Your task to perform on an android device: star an email in the gmail app Image 0: 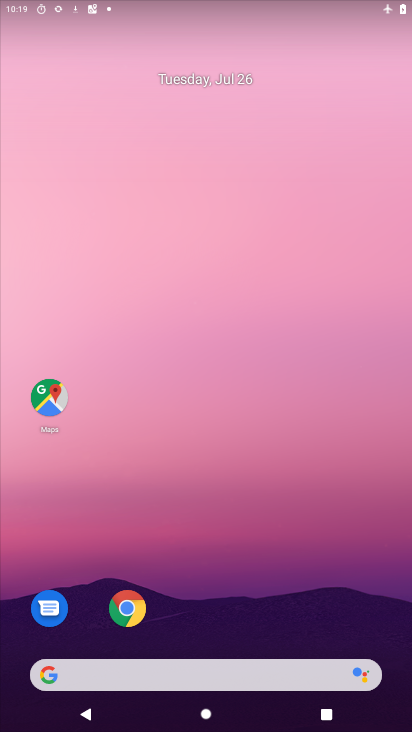
Step 0: drag from (223, 576) to (176, 90)
Your task to perform on an android device: star an email in the gmail app Image 1: 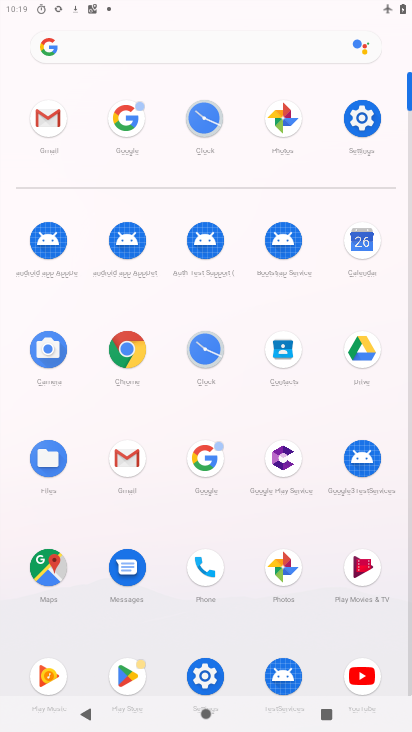
Step 1: click (35, 115)
Your task to perform on an android device: star an email in the gmail app Image 2: 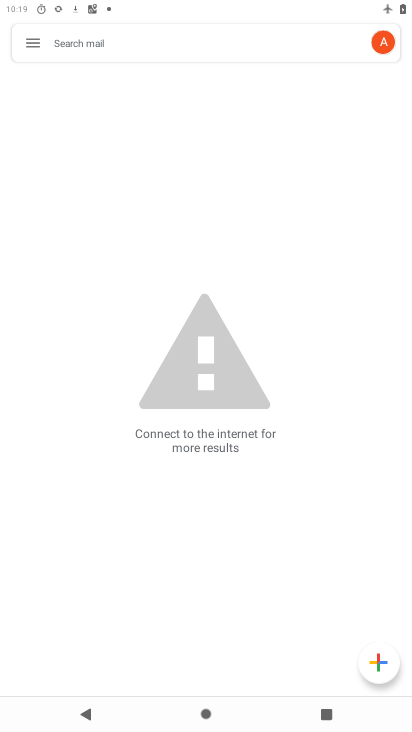
Step 2: click (27, 43)
Your task to perform on an android device: star an email in the gmail app Image 3: 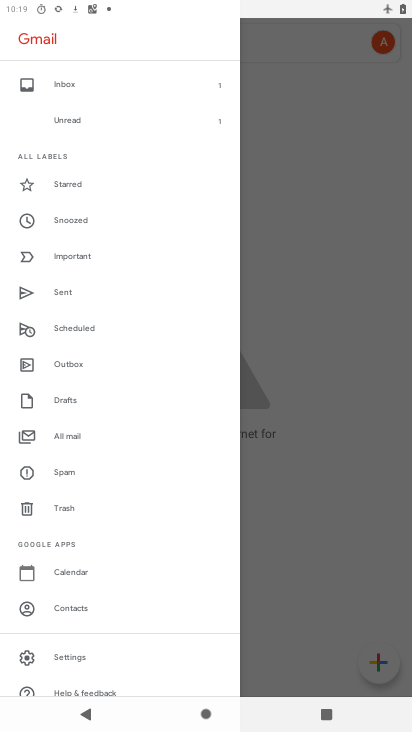
Step 3: click (83, 437)
Your task to perform on an android device: star an email in the gmail app Image 4: 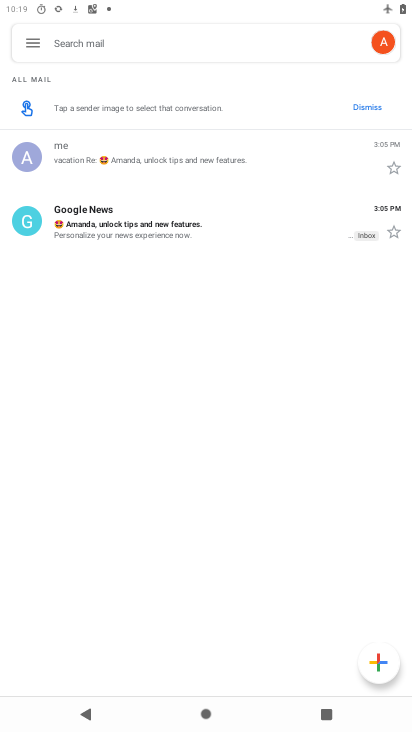
Step 4: click (390, 166)
Your task to perform on an android device: star an email in the gmail app Image 5: 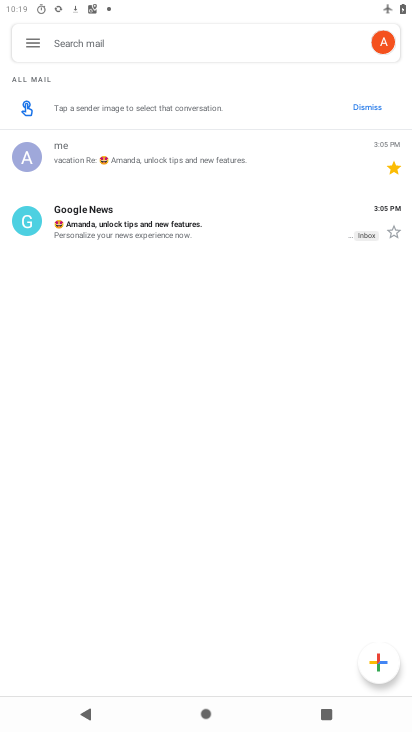
Step 5: task complete